Your task to perform on an android device: turn on airplane mode Image 0: 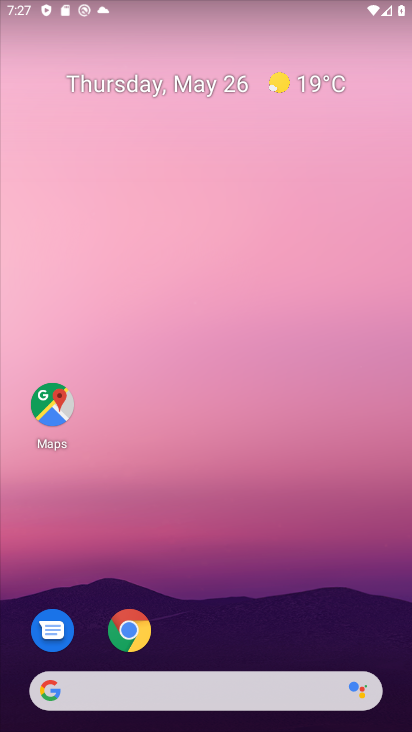
Step 0: drag from (286, 624) to (199, 81)
Your task to perform on an android device: turn on airplane mode Image 1: 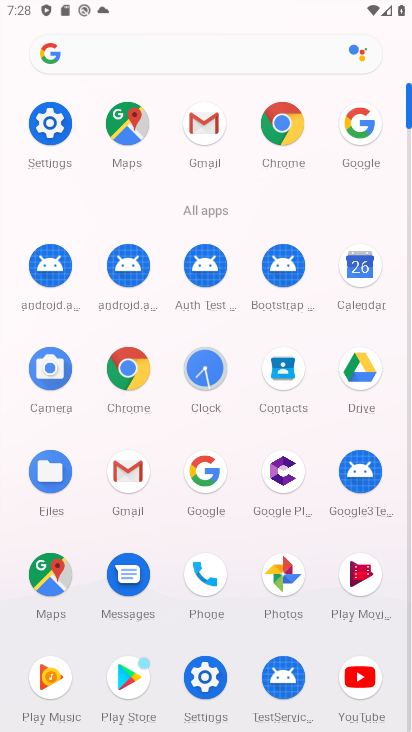
Step 1: click (50, 124)
Your task to perform on an android device: turn on airplane mode Image 2: 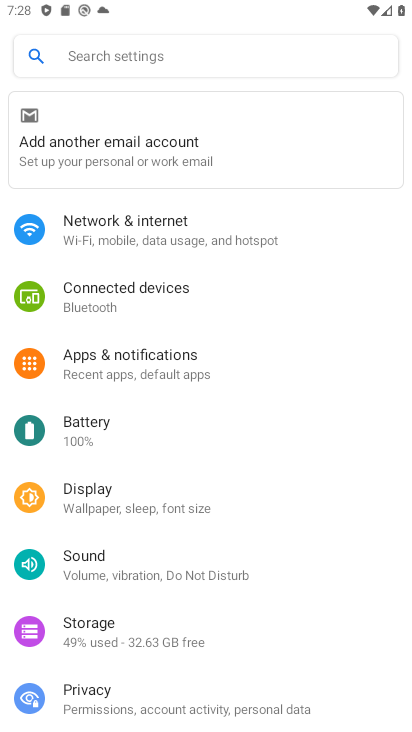
Step 2: click (101, 230)
Your task to perform on an android device: turn on airplane mode Image 3: 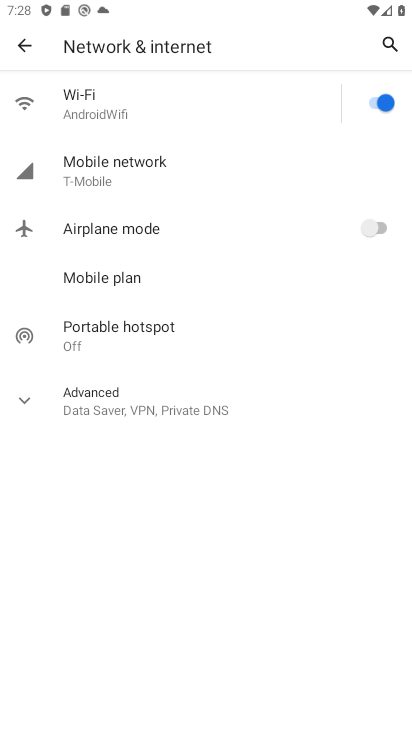
Step 3: click (369, 231)
Your task to perform on an android device: turn on airplane mode Image 4: 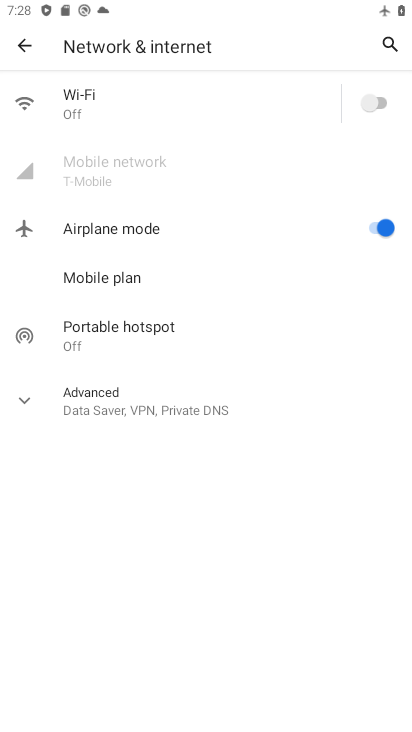
Step 4: task complete